Your task to perform on an android device: turn on priority inbox in the gmail app Image 0: 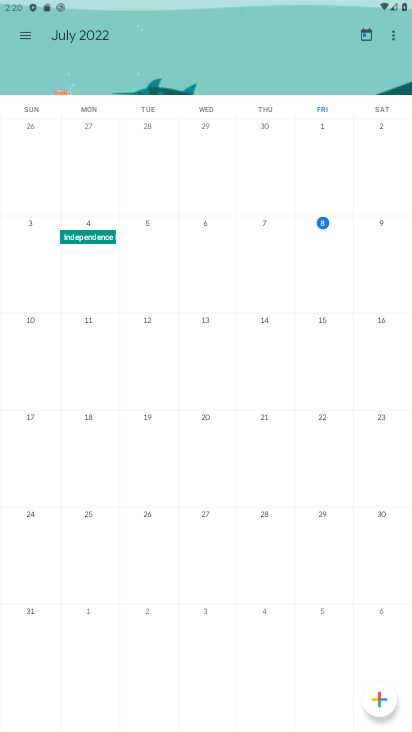
Step 0: press home button
Your task to perform on an android device: turn on priority inbox in the gmail app Image 1: 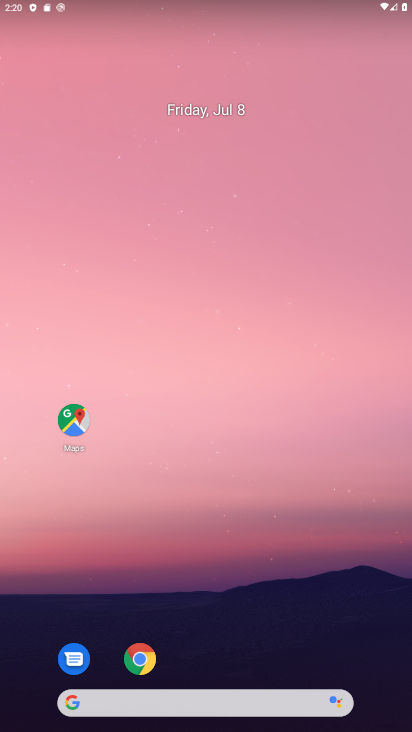
Step 1: drag from (219, 664) to (265, 91)
Your task to perform on an android device: turn on priority inbox in the gmail app Image 2: 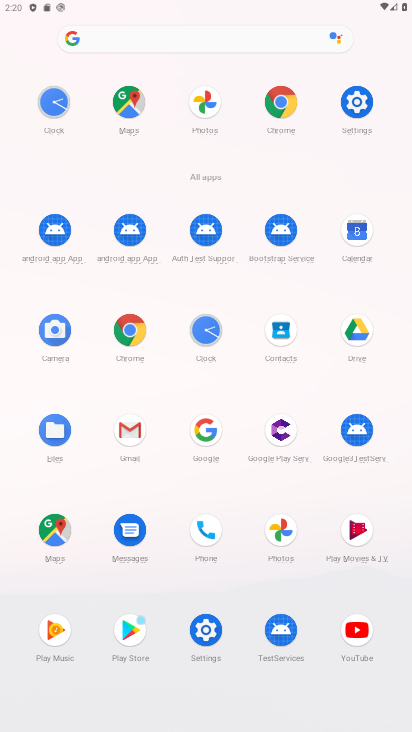
Step 2: click (131, 427)
Your task to perform on an android device: turn on priority inbox in the gmail app Image 3: 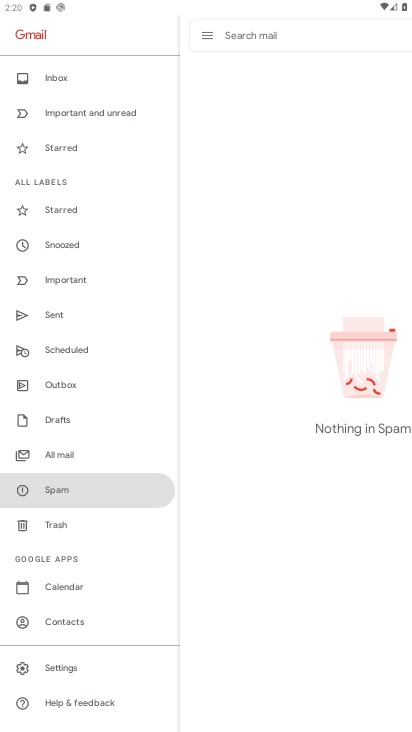
Step 3: click (79, 672)
Your task to perform on an android device: turn on priority inbox in the gmail app Image 4: 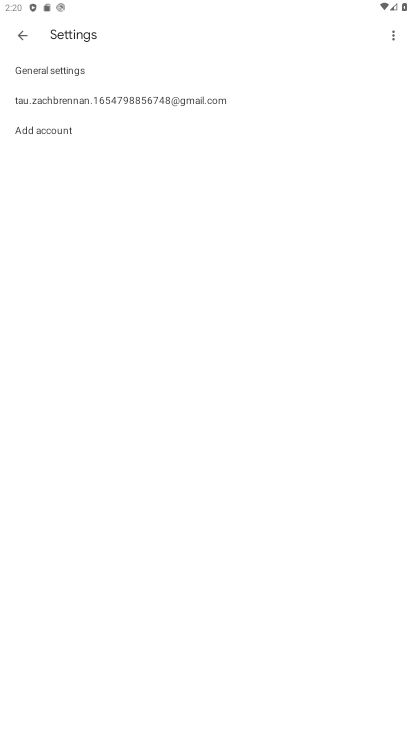
Step 4: click (172, 98)
Your task to perform on an android device: turn on priority inbox in the gmail app Image 5: 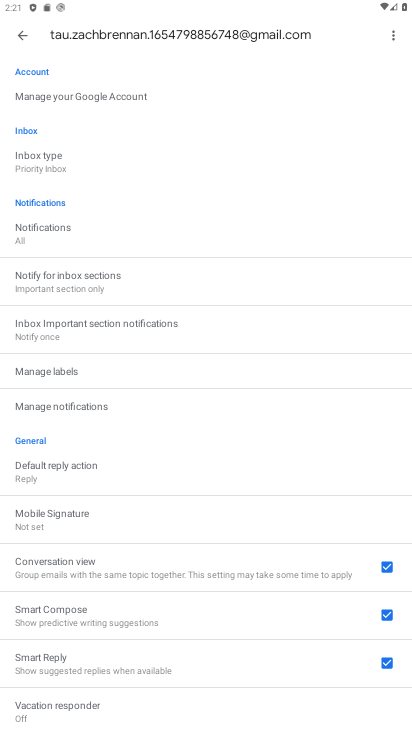
Step 5: click (78, 165)
Your task to perform on an android device: turn on priority inbox in the gmail app Image 6: 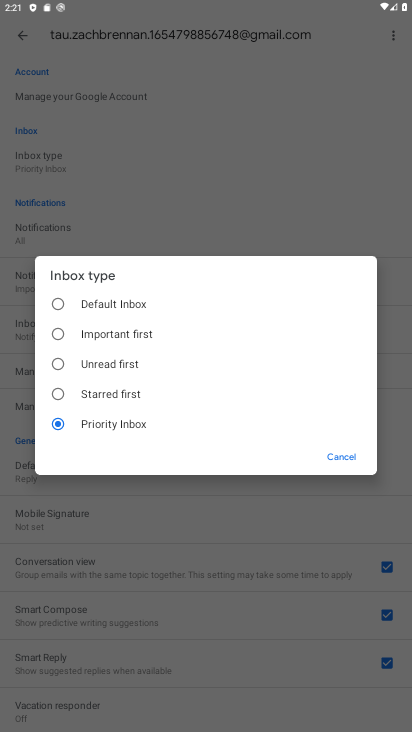
Step 6: click (126, 424)
Your task to perform on an android device: turn on priority inbox in the gmail app Image 7: 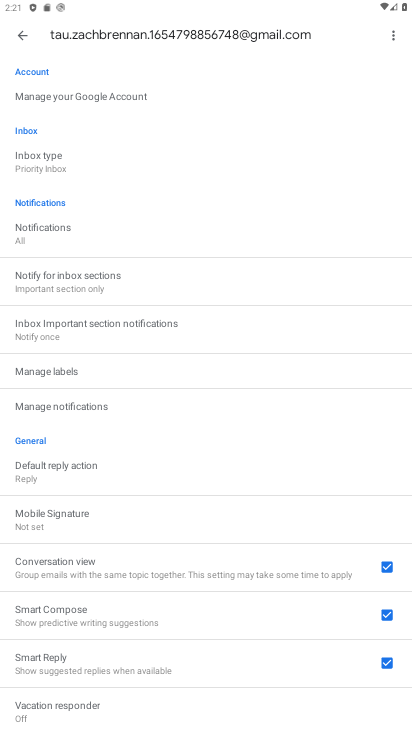
Step 7: task complete